Your task to perform on an android device: turn off location history Image 0: 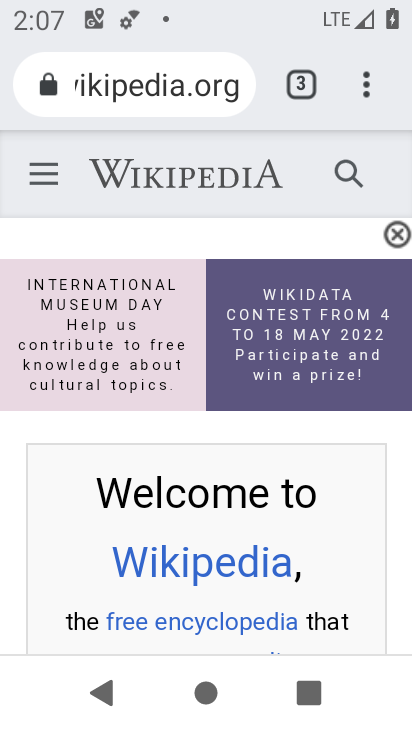
Step 0: press home button
Your task to perform on an android device: turn off location history Image 1: 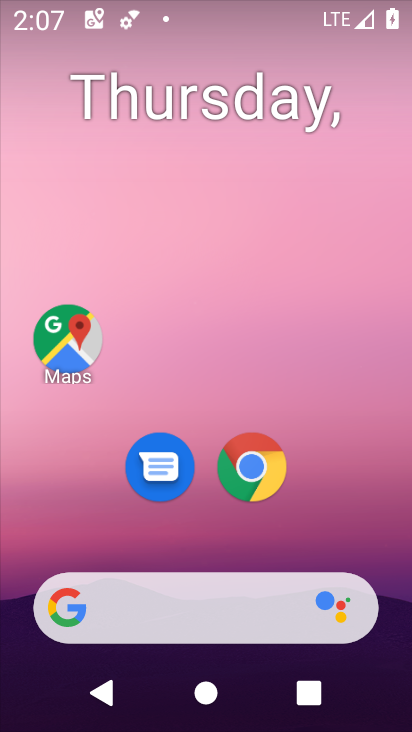
Step 1: drag from (236, 560) to (152, 33)
Your task to perform on an android device: turn off location history Image 2: 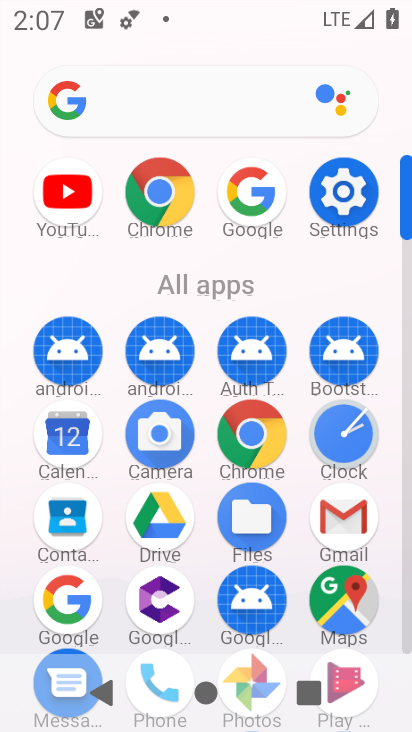
Step 2: click (335, 205)
Your task to perform on an android device: turn off location history Image 3: 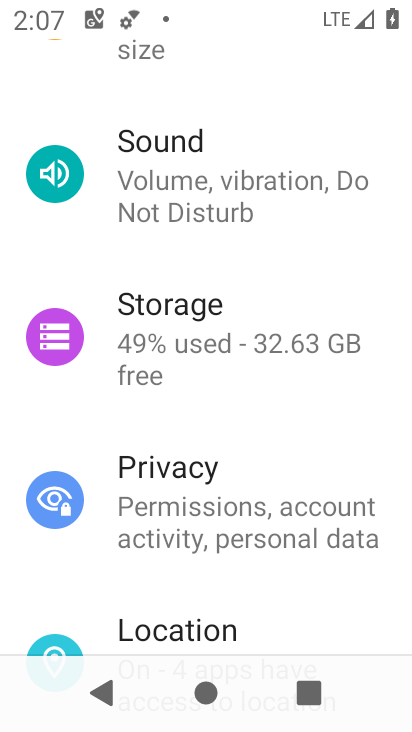
Step 3: click (180, 618)
Your task to perform on an android device: turn off location history Image 4: 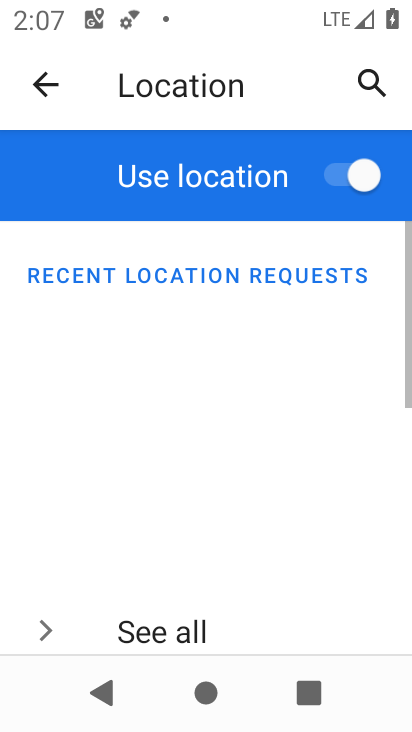
Step 4: drag from (180, 618) to (114, 154)
Your task to perform on an android device: turn off location history Image 5: 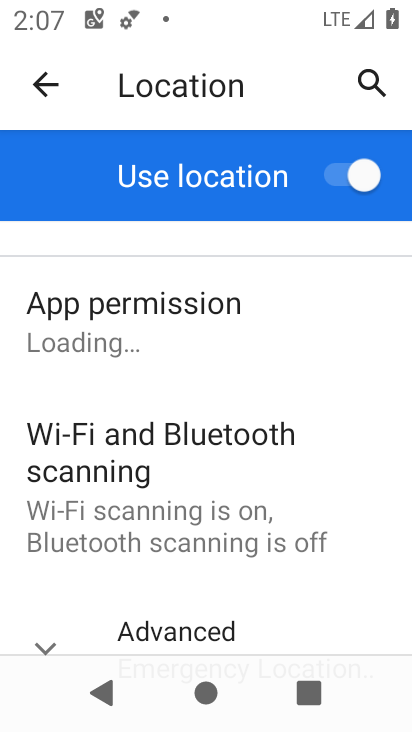
Step 5: click (220, 621)
Your task to perform on an android device: turn off location history Image 6: 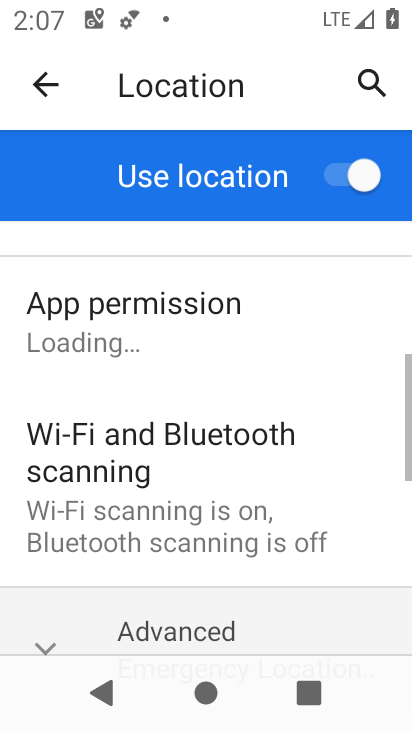
Step 6: drag from (220, 621) to (140, 163)
Your task to perform on an android device: turn off location history Image 7: 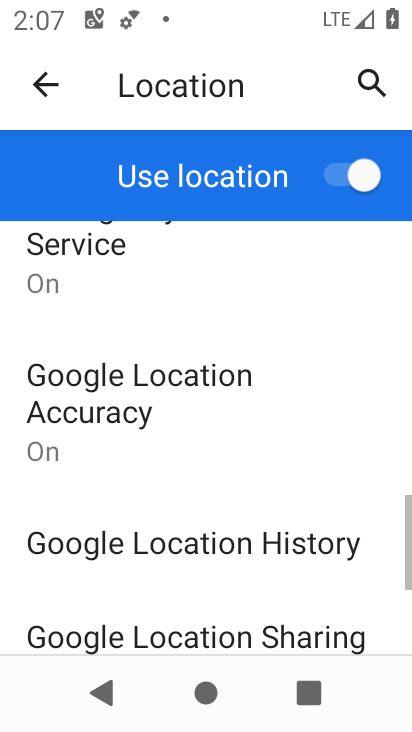
Step 7: click (235, 539)
Your task to perform on an android device: turn off location history Image 8: 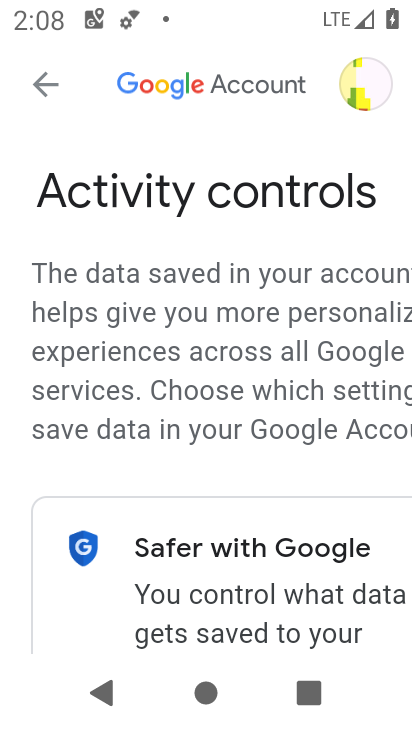
Step 8: drag from (342, 557) to (193, 158)
Your task to perform on an android device: turn off location history Image 9: 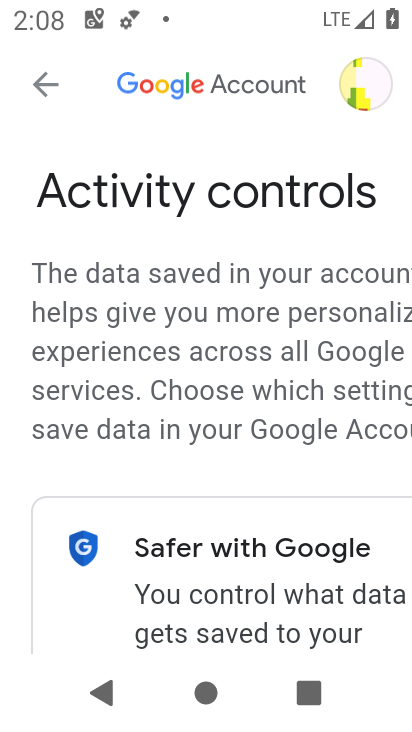
Step 9: drag from (307, 574) to (141, 134)
Your task to perform on an android device: turn off location history Image 10: 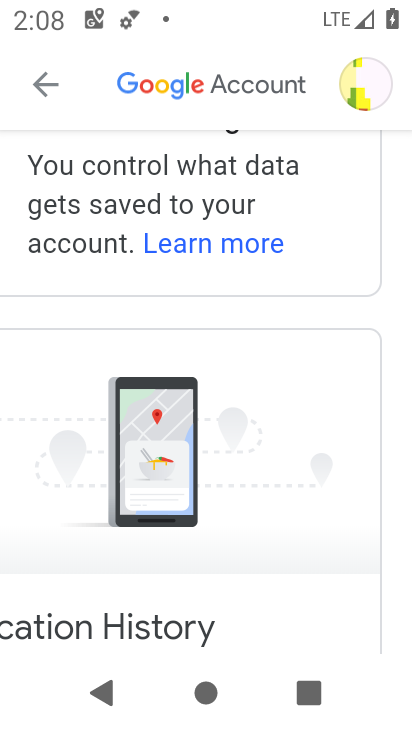
Step 10: drag from (276, 572) to (187, 44)
Your task to perform on an android device: turn off location history Image 11: 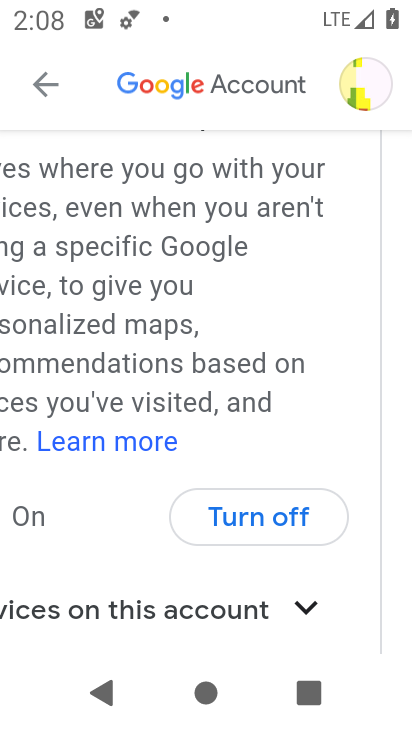
Step 11: click (250, 509)
Your task to perform on an android device: turn off location history Image 12: 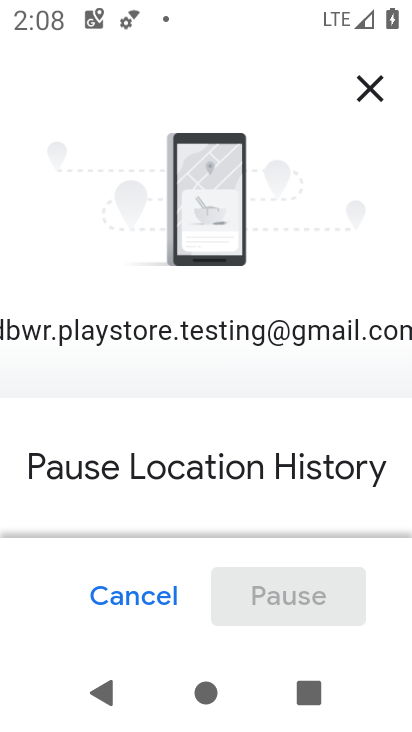
Step 12: drag from (287, 506) to (126, 1)
Your task to perform on an android device: turn off location history Image 13: 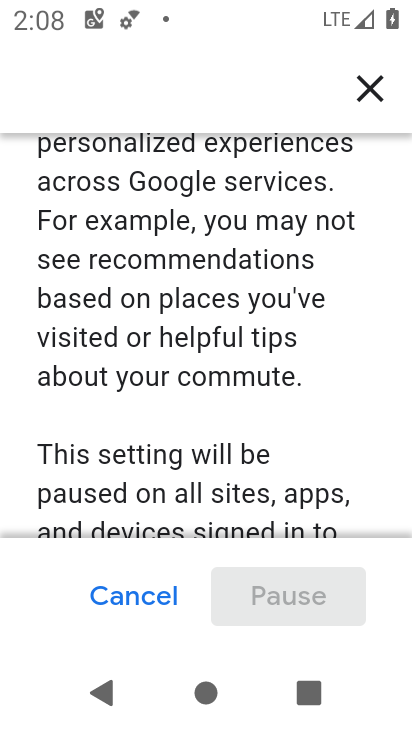
Step 13: drag from (278, 508) to (137, 0)
Your task to perform on an android device: turn off location history Image 14: 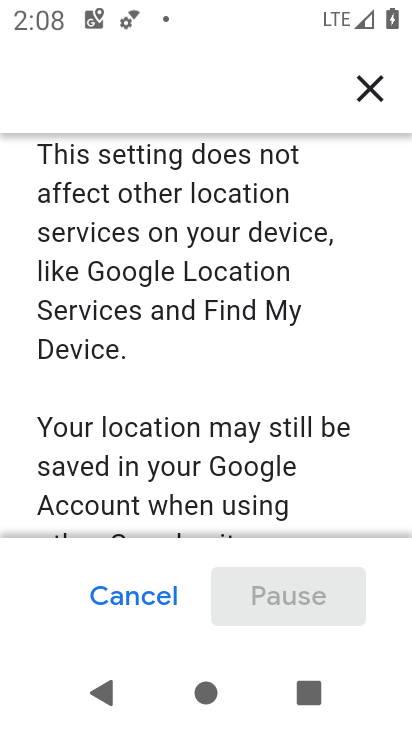
Step 14: drag from (279, 450) to (189, 6)
Your task to perform on an android device: turn off location history Image 15: 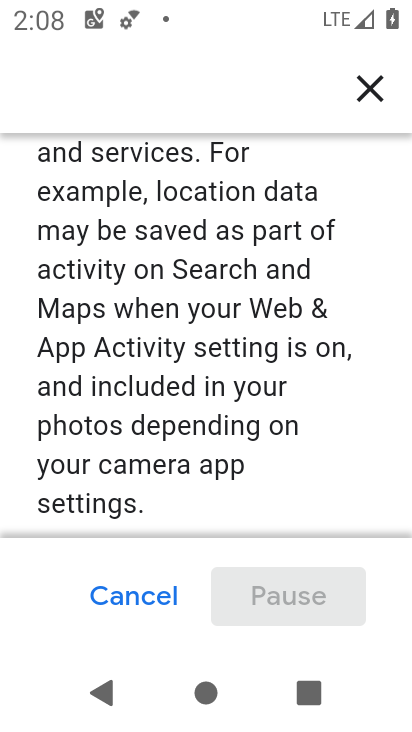
Step 15: drag from (295, 527) to (171, 0)
Your task to perform on an android device: turn off location history Image 16: 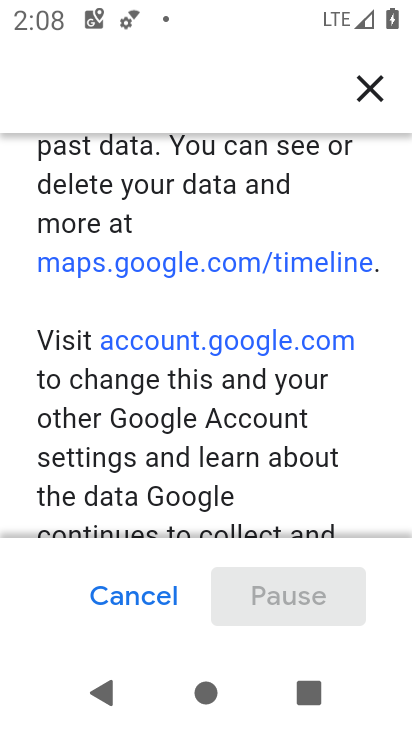
Step 16: drag from (329, 517) to (242, 21)
Your task to perform on an android device: turn off location history Image 17: 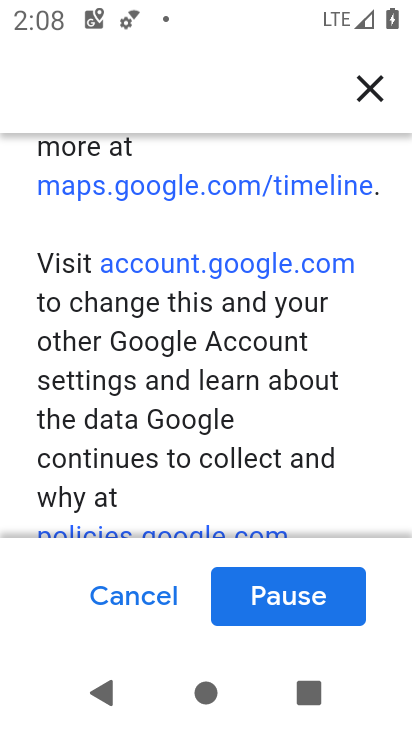
Step 17: click (292, 591)
Your task to perform on an android device: turn off location history Image 18: 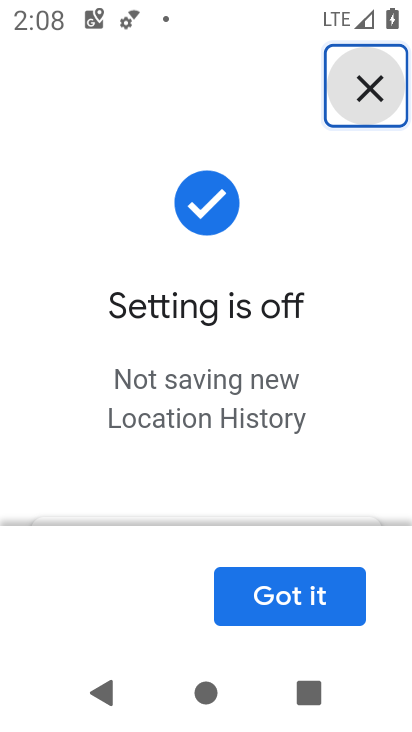
Step 18: click (325, 597)
Your task to perform on an android device: turn off location history Image 19: 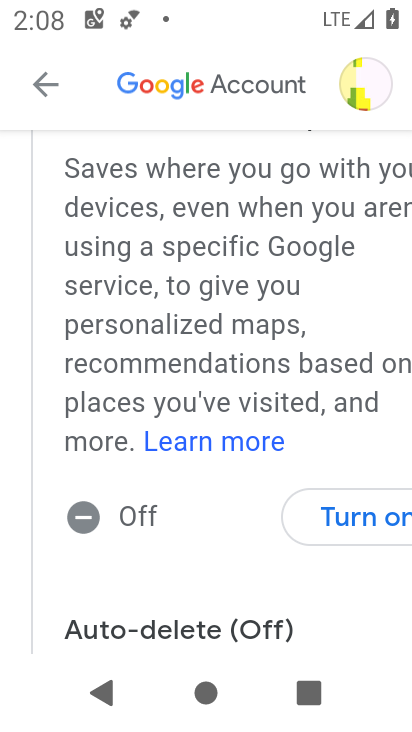
Step 19: task complete